Your task to perform on an android device: Open Google Chrome and open the bookmarks view Image 0: 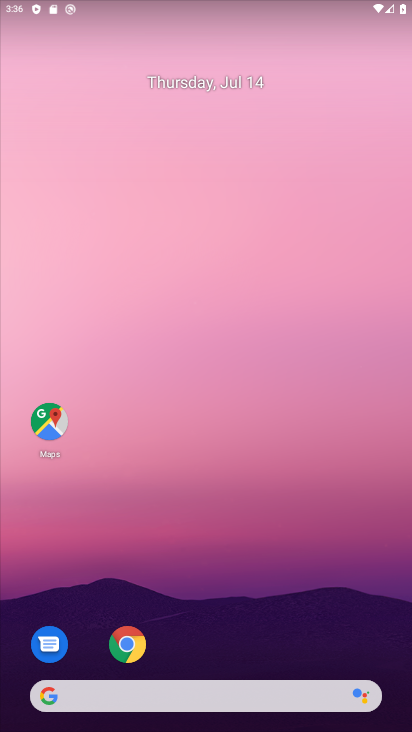
Step 0: drag from (291, 642) to (314, 116)
Your task to perform on an android device: Open Google Chrome and open the bookmarks view Image 1: 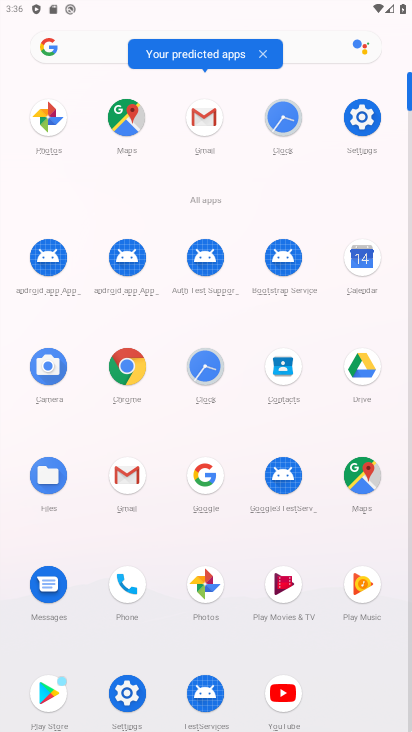
Step 1: click (116, 353)
Your task to perform on an android device: Open Google Chrome and open the bookmarks view Image 2: 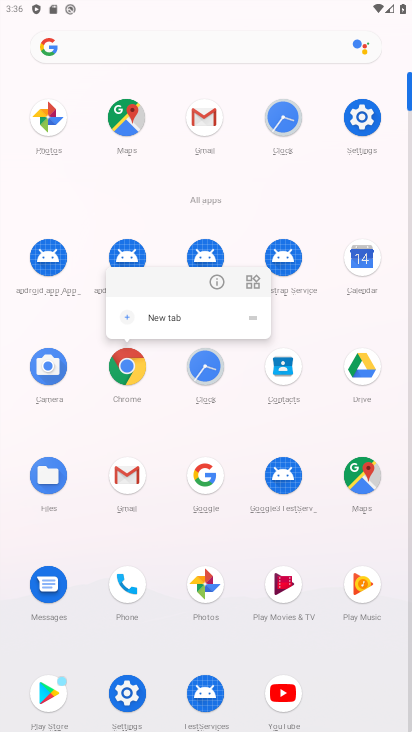
Step 2: click (115, 363)
Your task to perform on an android device: Open Google Chrome and open the bookmarks view Image 3: 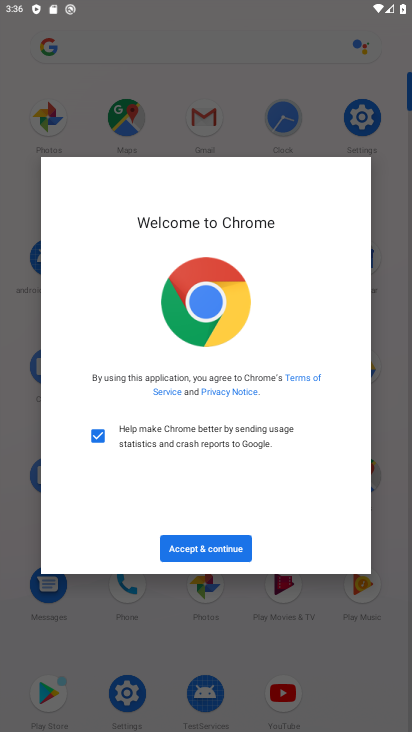
Step 3: click (225, 541)
Your task to perform on an android device: Open Google Chrome and open the bookmarks view Image 4: 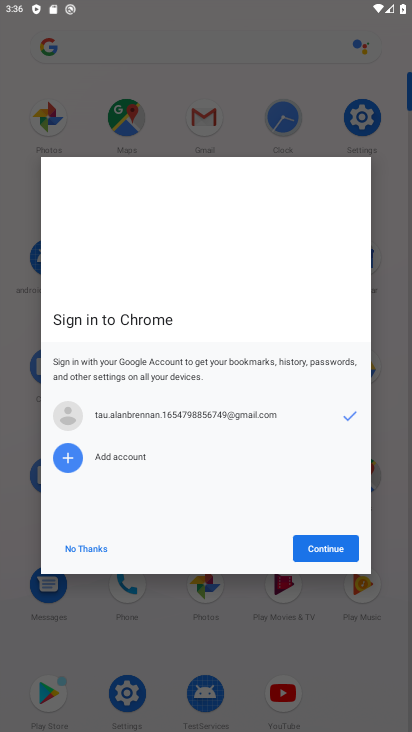
Step 4: click (323, 550)
Your task to perform on an android device: Open Google Chrome and open the bookmarks view Image 5: 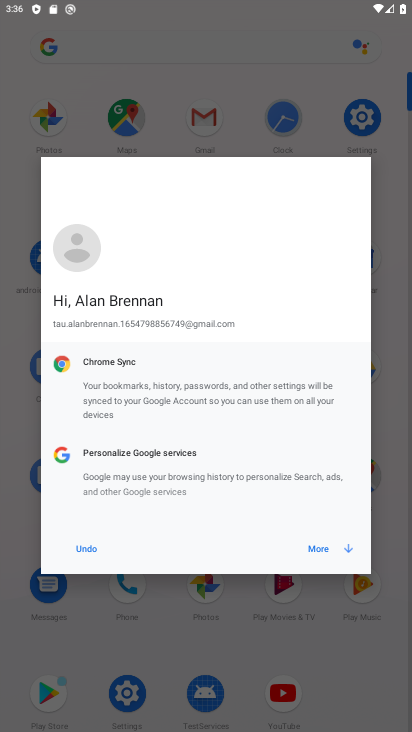
Step 5: click (323, 550)
Your task to perform on an android device: Open Google Chrome and open the bookmarks view Image 6: 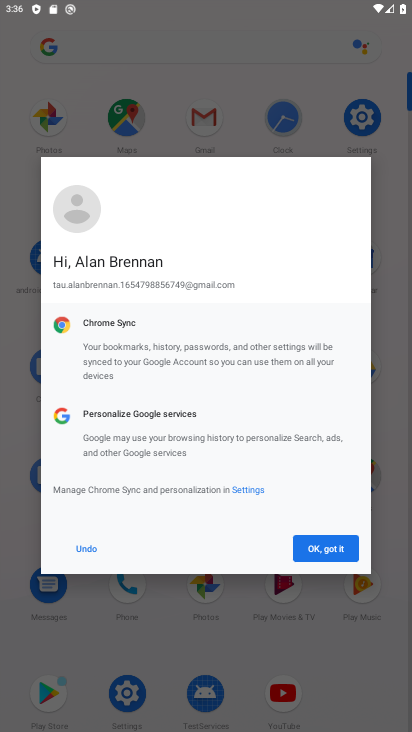
Step 6: click (323, 550)
Your task to perform on an android device: Open Google Chrome and open the bookmarks view Image 7: 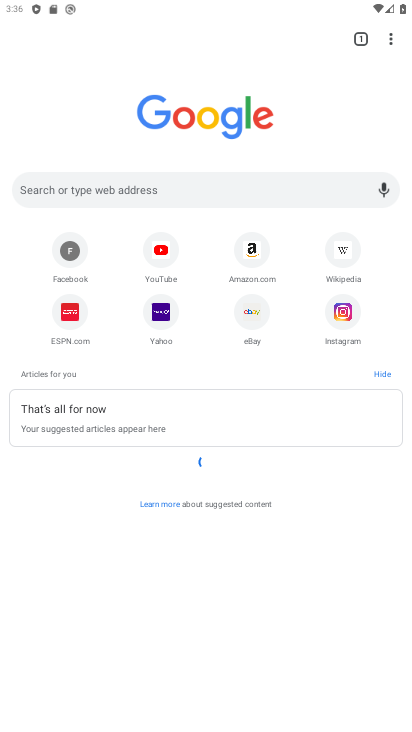
Step 7: task complete